Your task to perform on an android device: uninstall "eBay: The shopping marketplace" Image 0: 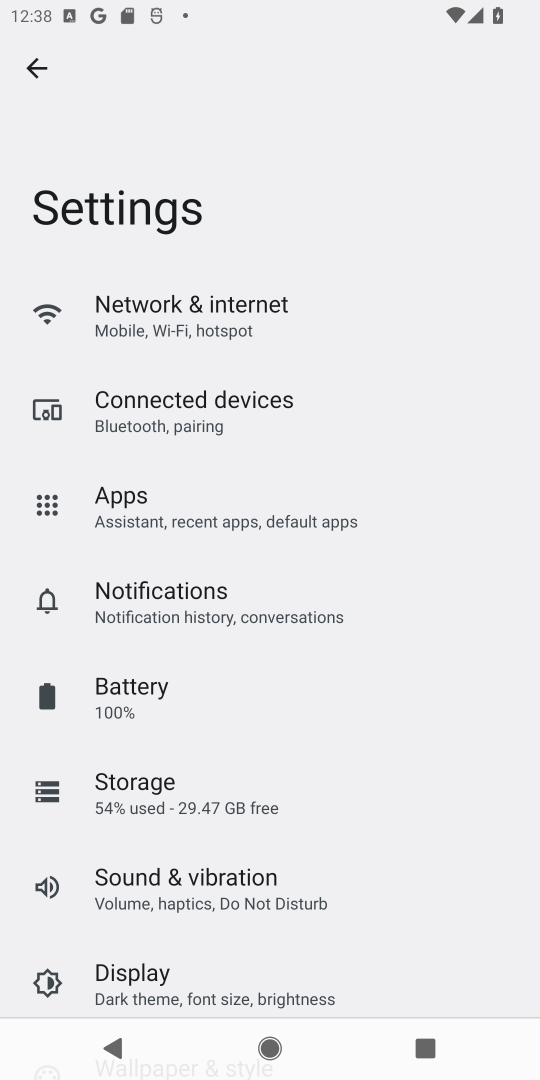
Step 0: press home button
Your task to perform on an android device: uninstall "eBay: The shopping marketplace" Image 1: 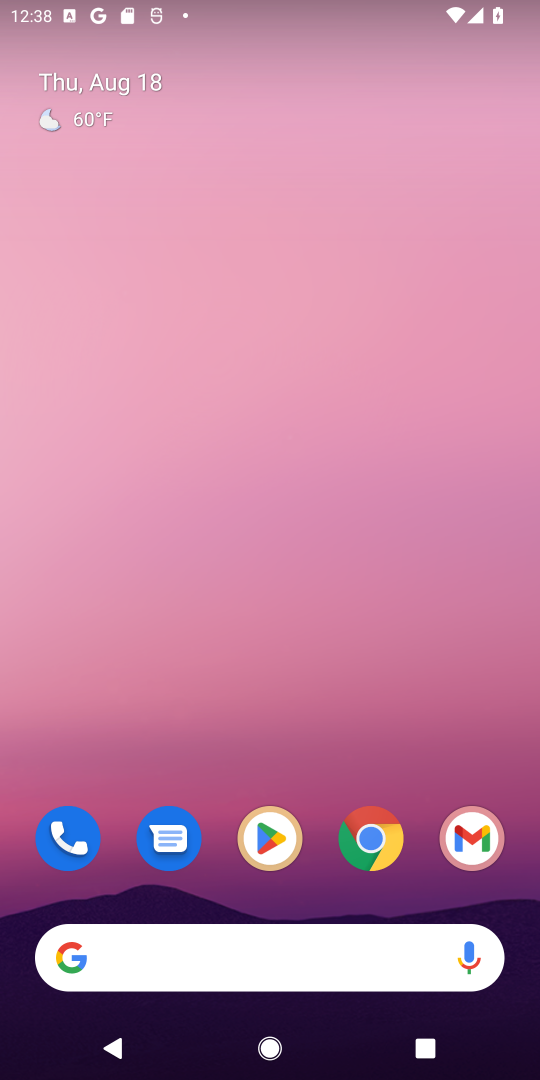
Step 1: click (260, 820)
Your task to perform on an android device: uninstall "eBay: The shopping marketplace" Image 2: 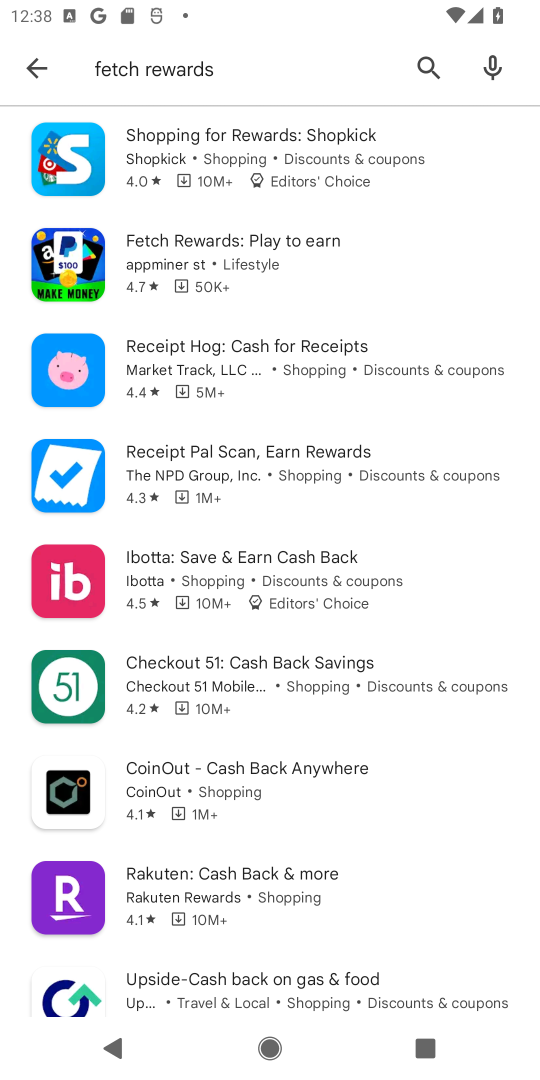
Step 2: click (419, 70)
Your task to perform on an android device: uninstall "eBay: The shopping marketplace" Image 3: 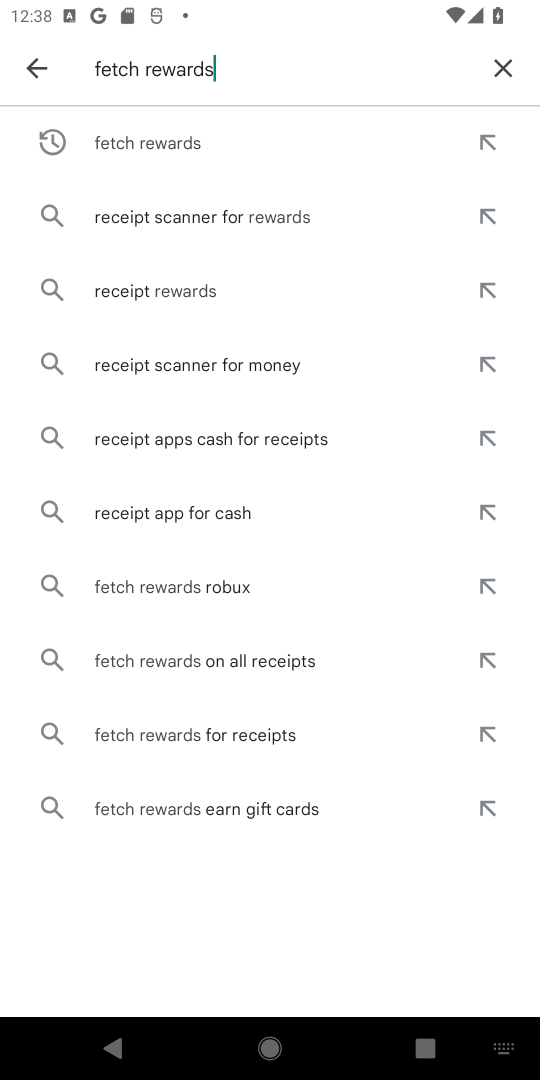
Step 3: click (507, 67)
Your task to perform on an android device: uninstall "eBay: The shopping marketplace" Image 4: 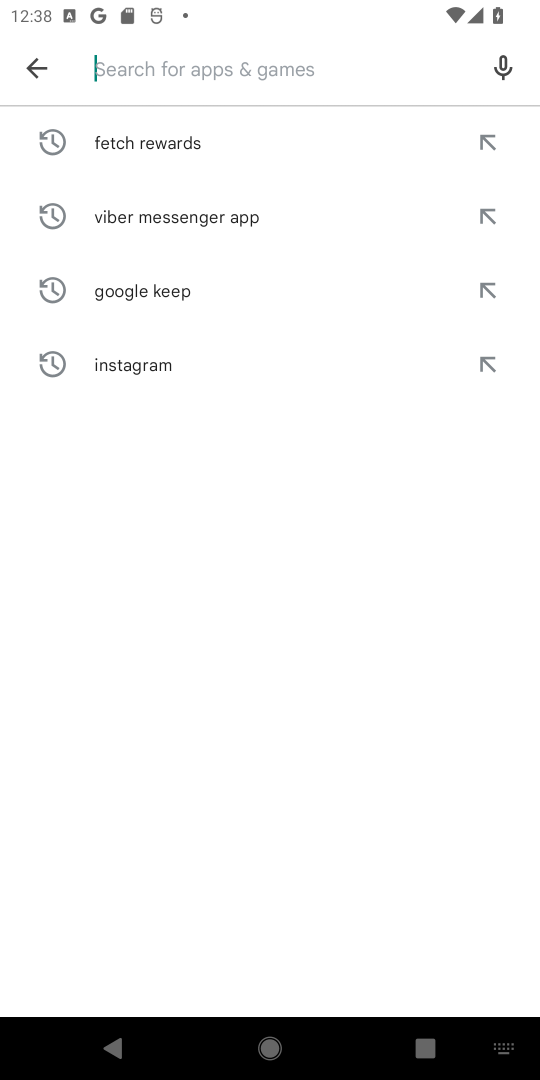
Step 4: type "eBay: The shopping marketplace"
Your task to perform on an android device: uninstall "eBay: The shopping marketplace" Image 5: 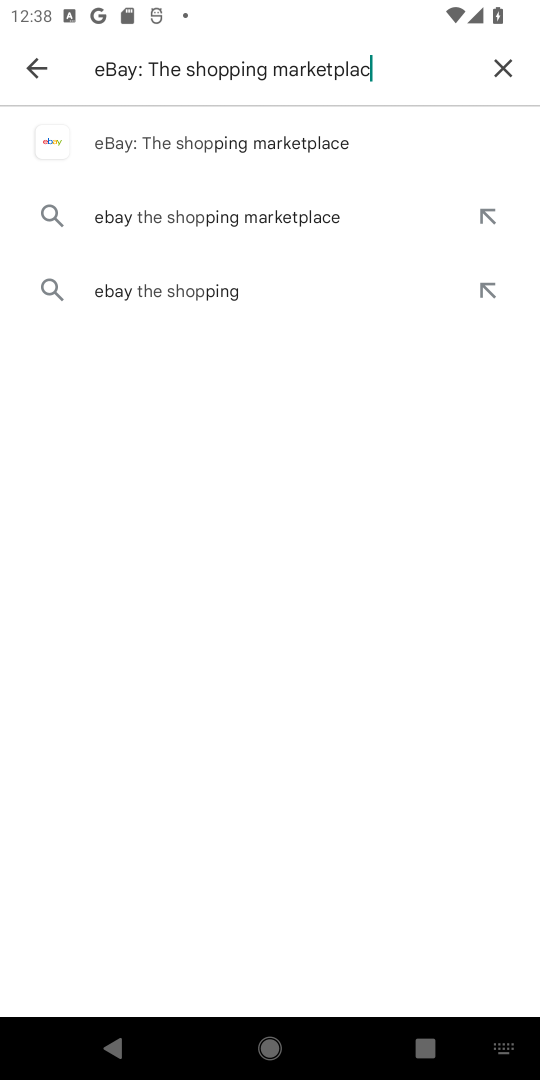
Step 5: type ""
Your task to perform on an android device: uninstall "eBay: The shopping marketplace" Image 6: 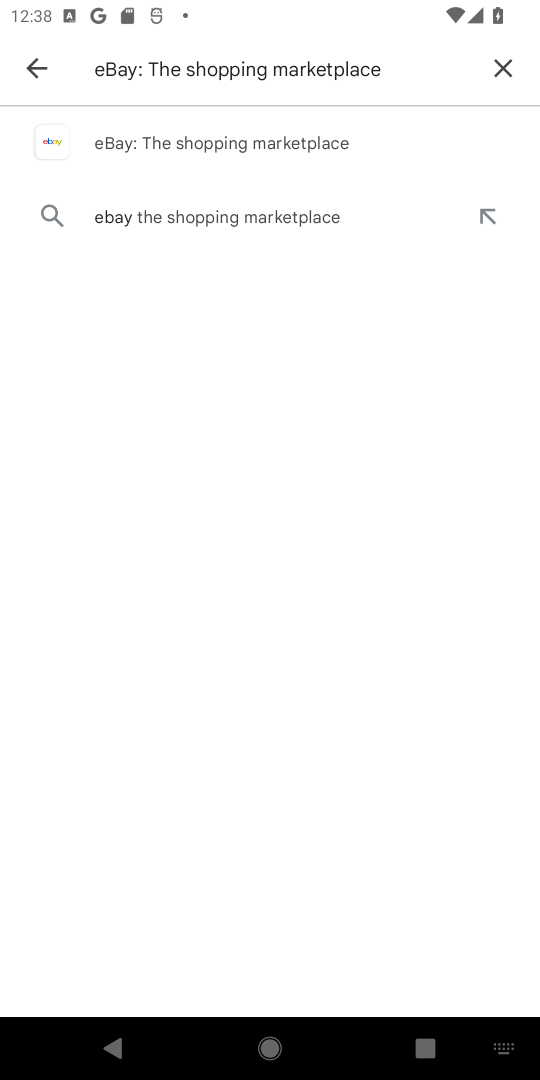
Step 6: click (183, 153)
Your task to perform on an android device: uninstall "eBay: The shopping marketplace" Image 7: 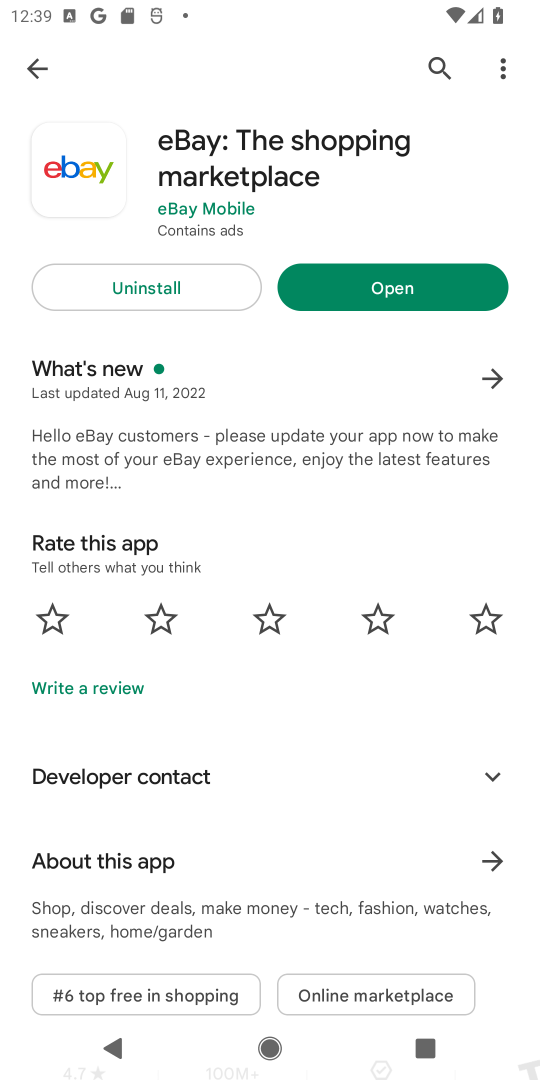
Step 7: click (161, 291)
Your task to perform on an android device: uninstall "eBay: The shopping marketplace" Image 8: 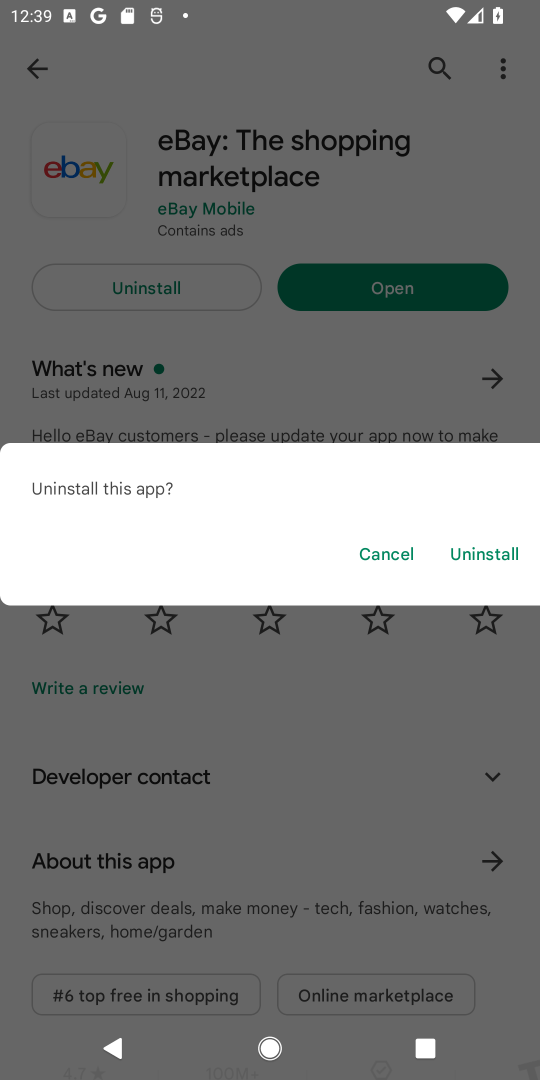
Step 8: click (501, 560)
Your task to perform on an android device: uninstall "eBay: The shopping marketplace" Image 9: 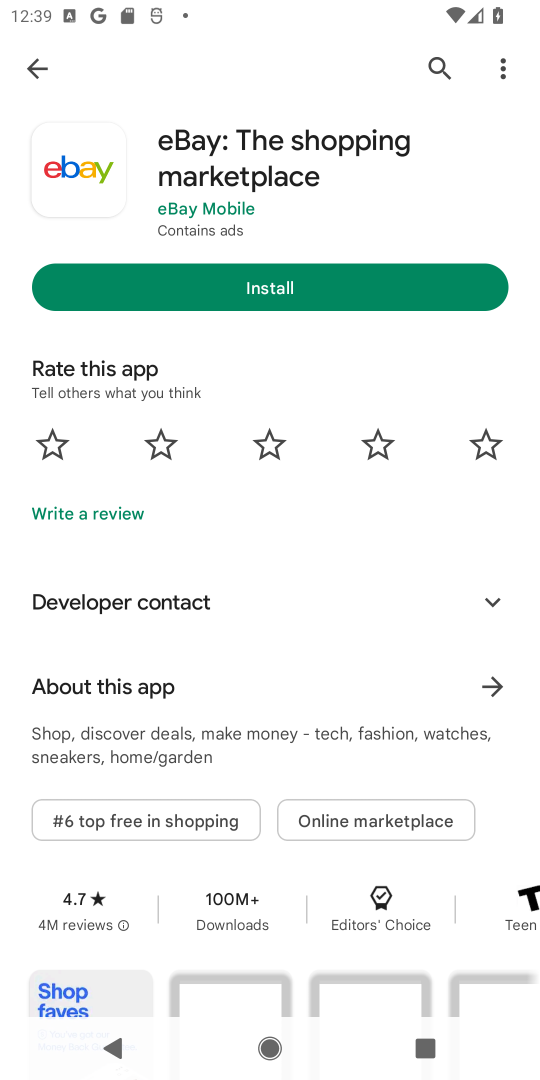
Step 9: task complete